Your task to perform on an android device: turn on improve location accuracy Image 0: 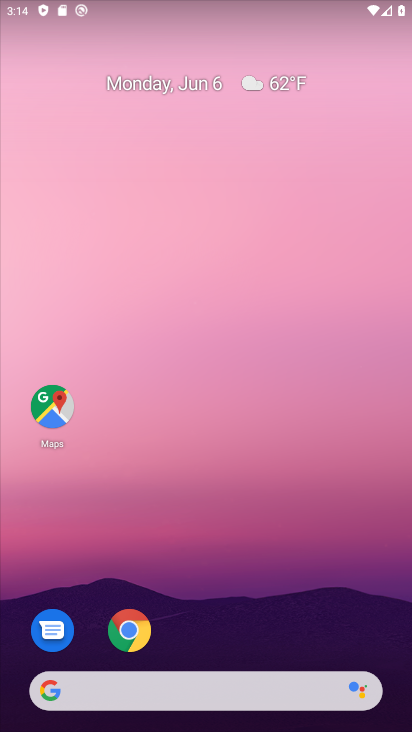
Step 0: drag from (270, 614) to (235, 3)
Your task to perform on an android device: turn on improve location accuracy Image 1: 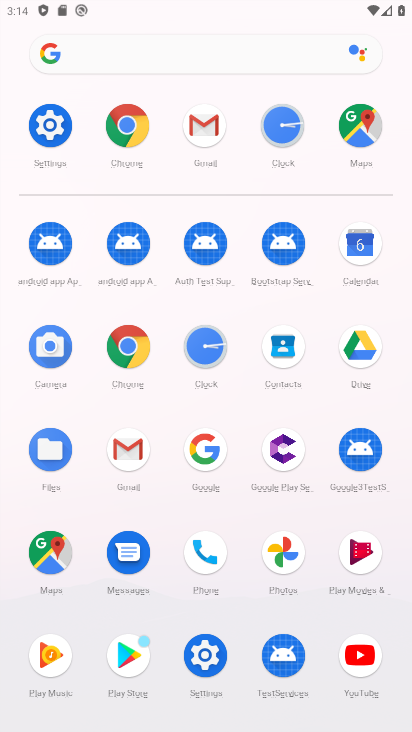
Step 1: click (37, 132)
Your task to perform on an android device: turn on improve location accuracy Image 2: 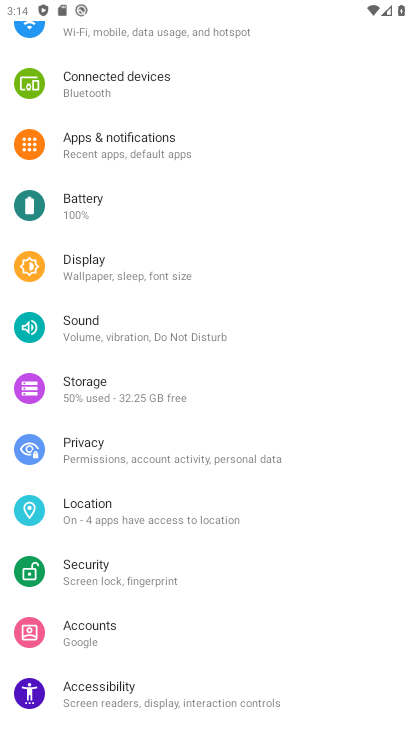
Step 2: click (80, 501)
Your task to perform on an android device: turn on improve location accuracy Image 3: 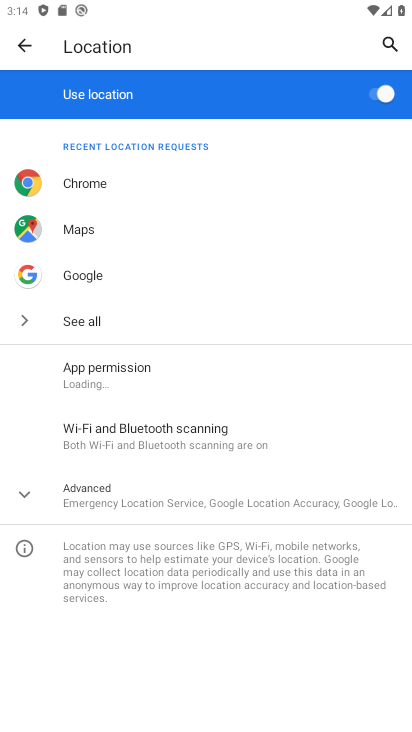
Step 3: click (80, 501)
Your task to perform on an android device: turn on improve location accuracy Image 4: 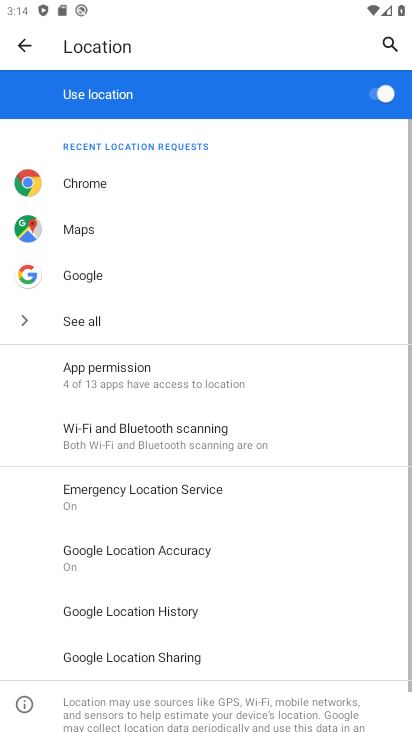
Step 4: click (104, 568)
Your task to perform on an android device: turn on improve location accuracy Image 5: 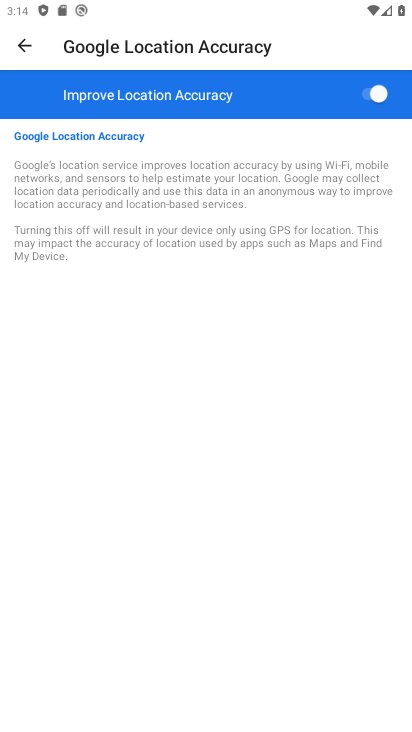
Step 5: click (309, 86)
Your task to perform on an android device: turn on improve location accuracy Image 6: 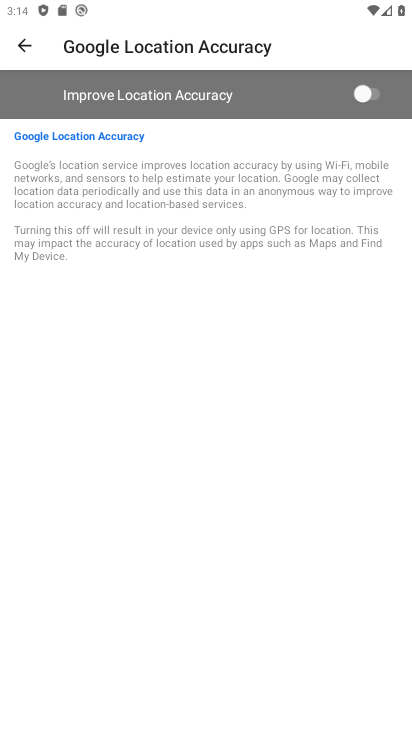
Step 6: click (309, 86)
Your task to perform on an android device: turn on improve location accuracy Image 7: 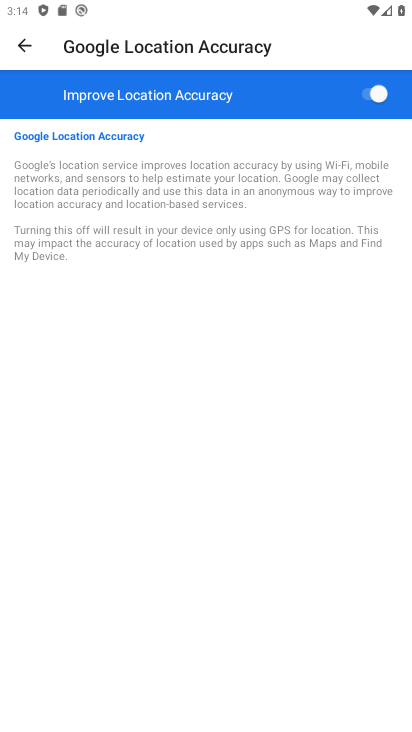
Step 7: task complete